Your task to perform on an android device: Go to eBay Image 0: 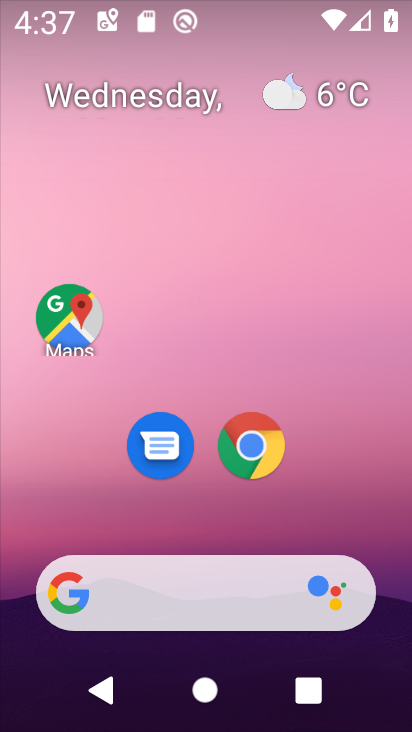
Step 0: click (255, 417)
Your task to perform on an android device: Go to eBay Image 1: 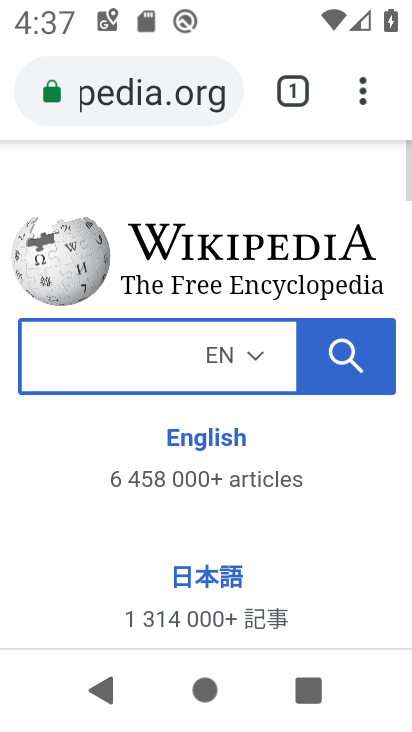
Step 1: click (156, 106)
Your task to perform on an android device: Go to eBay Image 2: 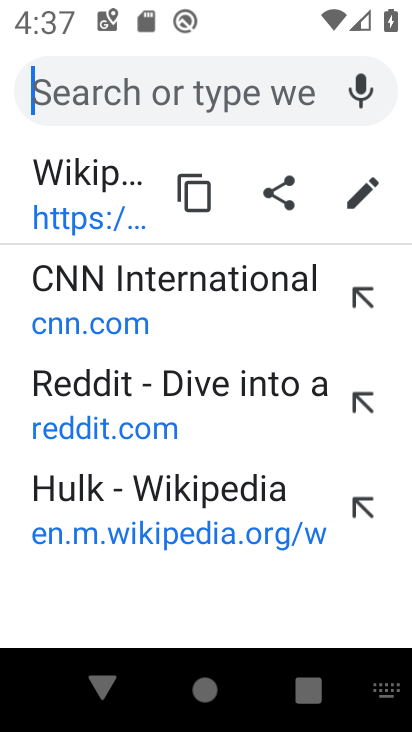
Step 2: type "ebay"
Your task to perform on an android device: Go to eBay Image 3: 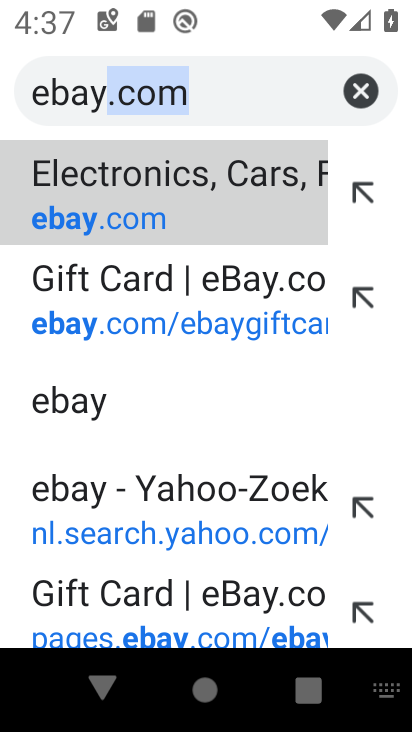
Step 3: click (127, 209)
Your task to perform on an android device: Go to eBay Image 4: 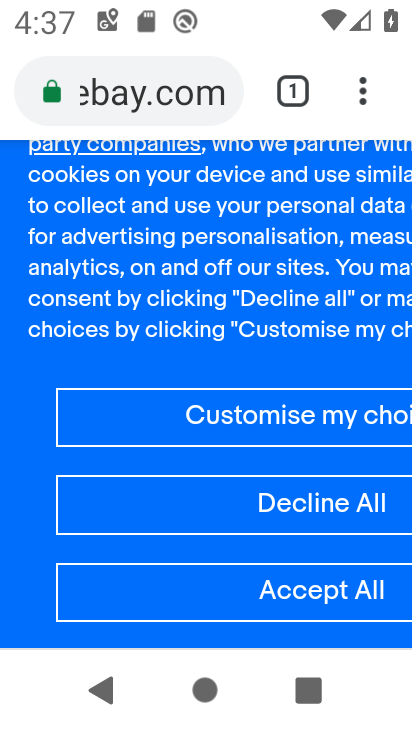
Step 4: task complete